Your task to perform on an android device: Open calendar and show me the third week of next month Image 0: 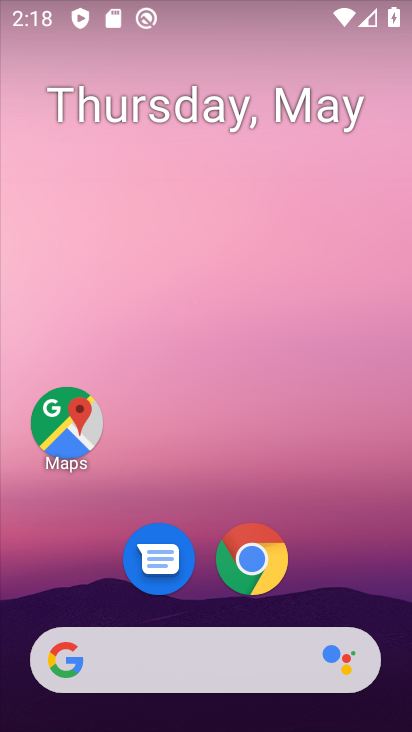
Step 0: drag from (208, 597) to (253, 171)
Your task to perform on an android device: Open calendar and show me the third week of next month Image 1: 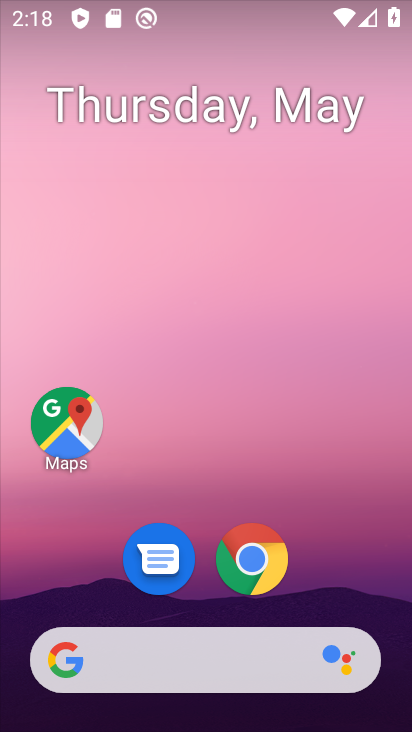
Step 1: drag from (202, 603) to (219, 34)
Your task to perform on an android device: Open calendar and show me the third week of next month Image 2: 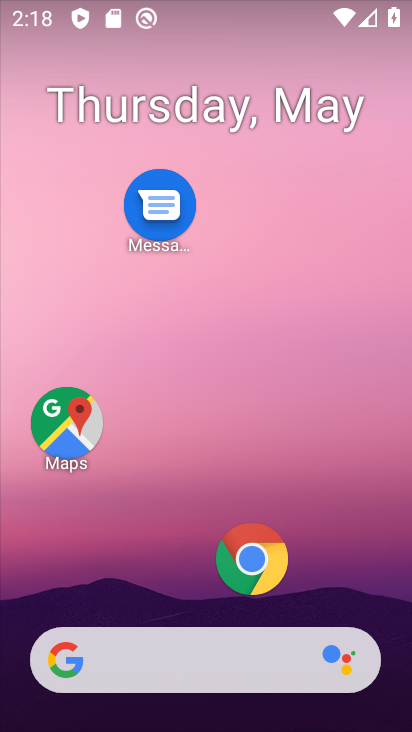
Step 2: drag from (159, 567) to (221, 161)
Your task to perform on an android device: Open calendar and show me the third week of next month Image 3: 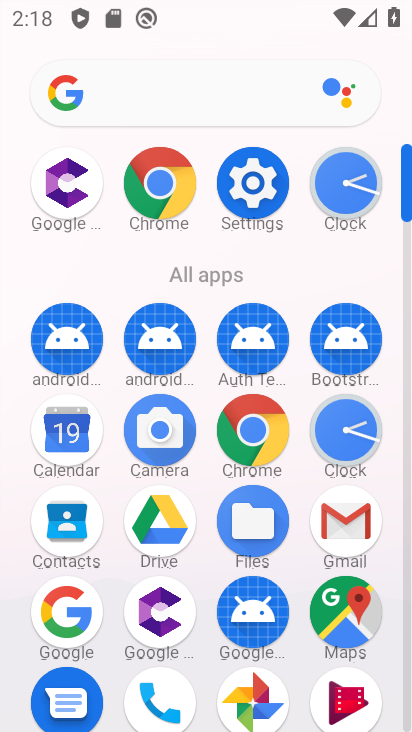
Step 3: click (85, 442)
Your task to perform on an android device: Open calendar and show me the third week of next month Image 4: 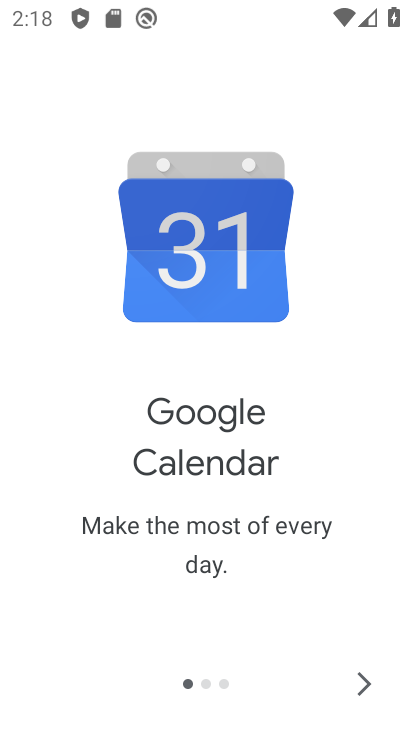
Step 4: click (355, 690)
Your task to perform on an android device: Open calendar and show me the third week of next month Image 5: 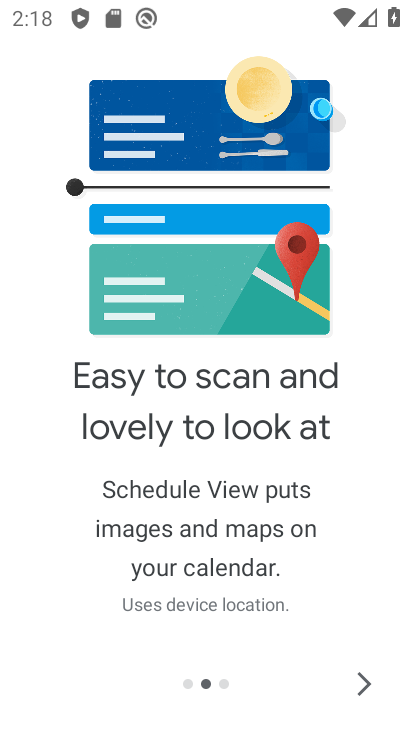
Step 5: click (355, 694)
Your task to perform on an android device: Open calendar and show me the third week of next month Image 6: 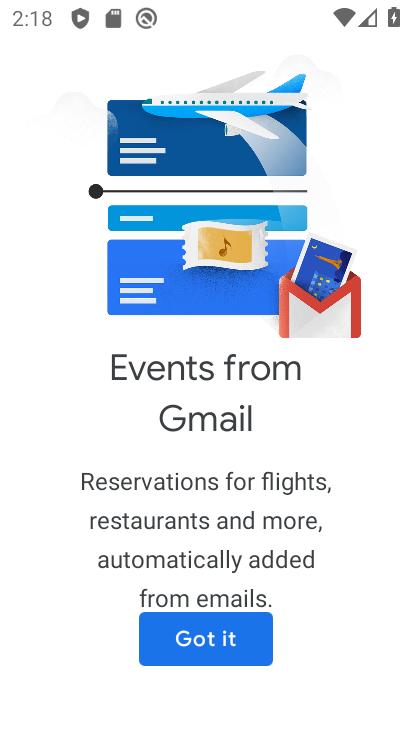
Step 6: click (228, 641)
Your task to perform on an android device: Open calendar and show me the third week of next month Image 7: 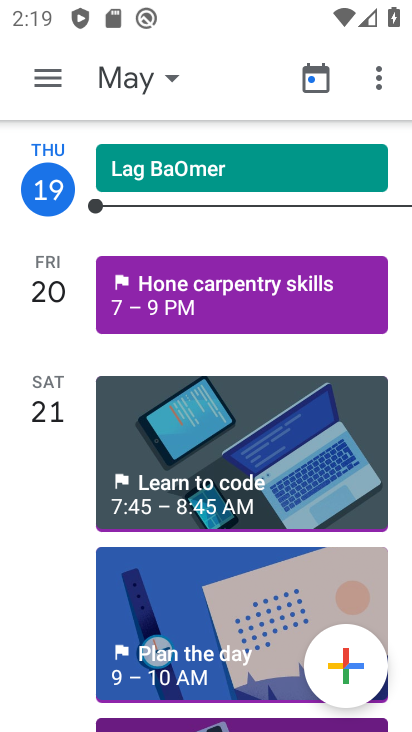
Step 7: click (136, 87)
Your task to perform on an android device: Open calendar and show me the third week of next month Image 8: 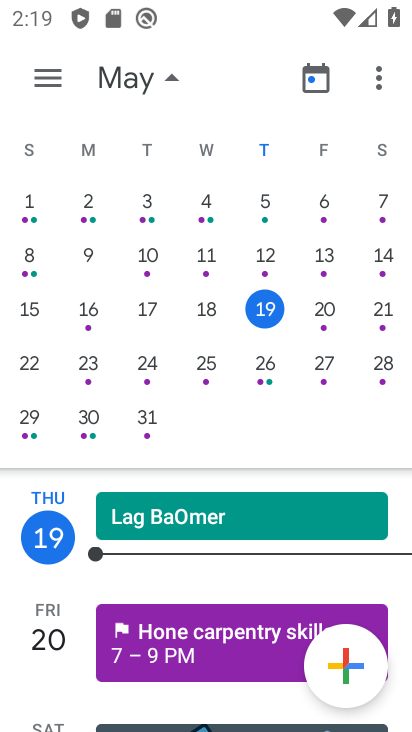
Step 8: drag from (356, 359) to (7, 280)
Your task to perform on an android device: Open calendar and show me the third week of next month Image 9: 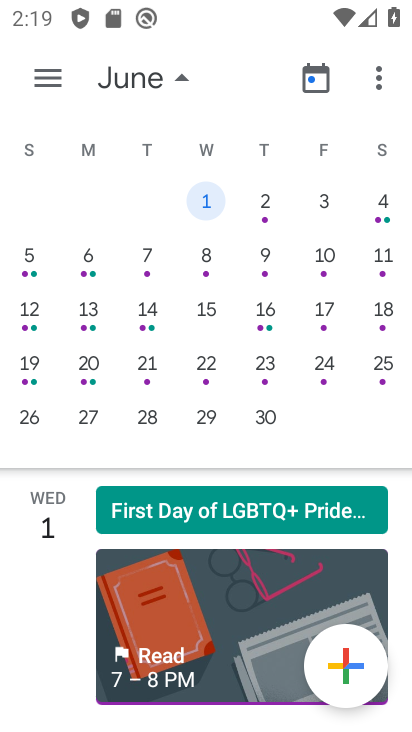
Step 9: click (265, 313)
Your task to perform on an android device: Open calendar and show me the third week of next month Image 10: 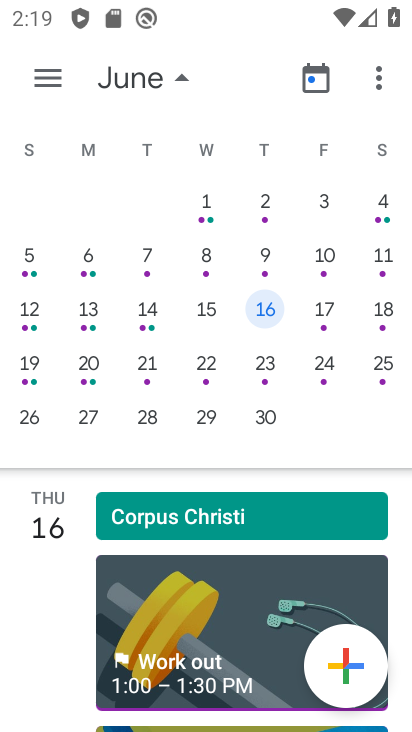
Step 10: click (49, 83)
Your task to perform on an android device: Open calendar and show me the third week of next month Image 11: 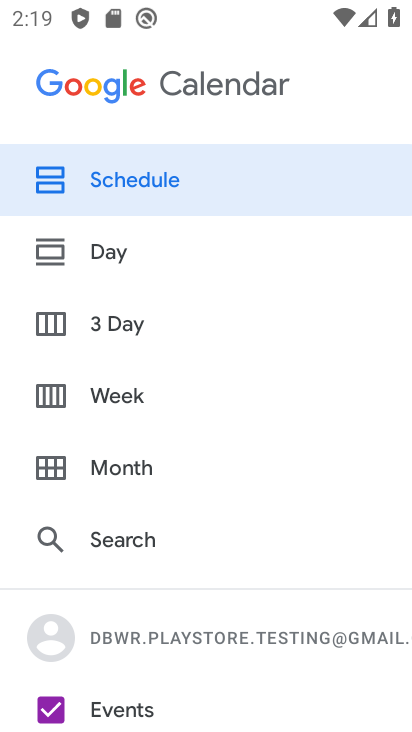
Step 11: click (127, 416)
Your task to perform on an android device: Open calendar and show me the third week of next month Image 12: 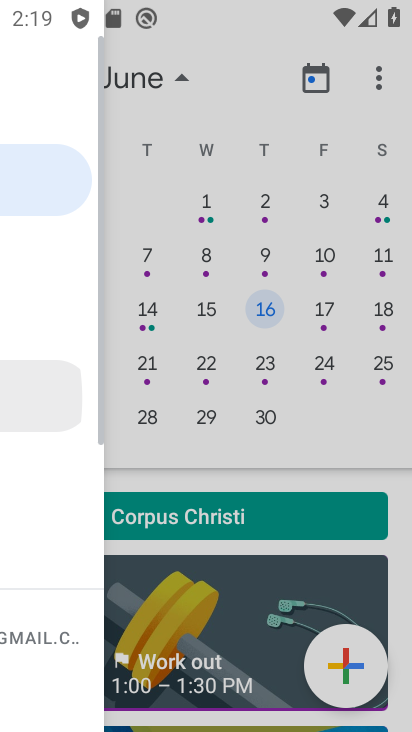
Step 12: click (135, 417)
Your task to perform on an android device: Open calendar and show me the third week of next month Image 13: 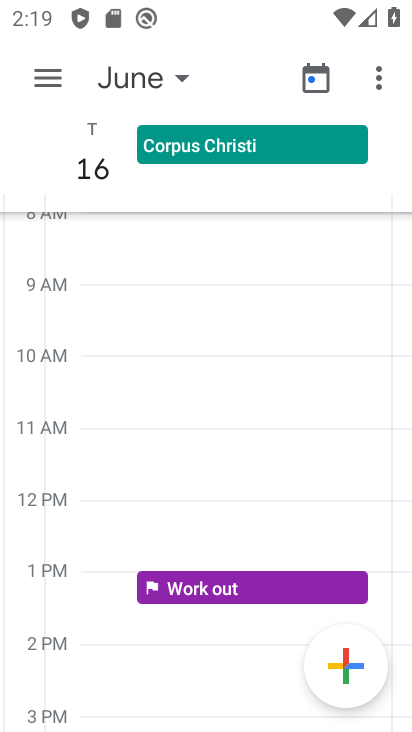
Step 13: click (135, 402)
Your task to perform on an android device: Open calendar and show me the third week of next month Image 14: 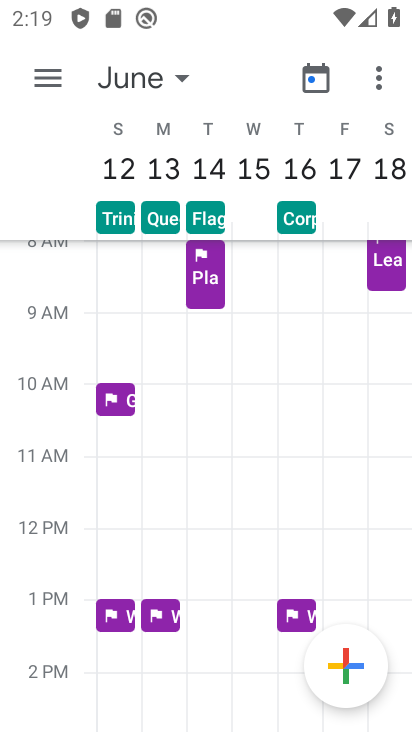
Step 14: task complete